Your task to perform on an android device: snooze an email in the gmail app Image 0: 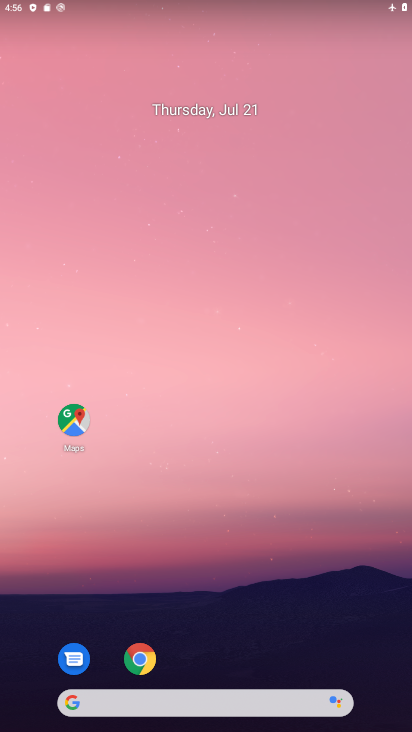
Step 0: drag from (365, 668) to (316, 101)
Your task to perform on an android device: snooze an email in the gmail app Image 1: 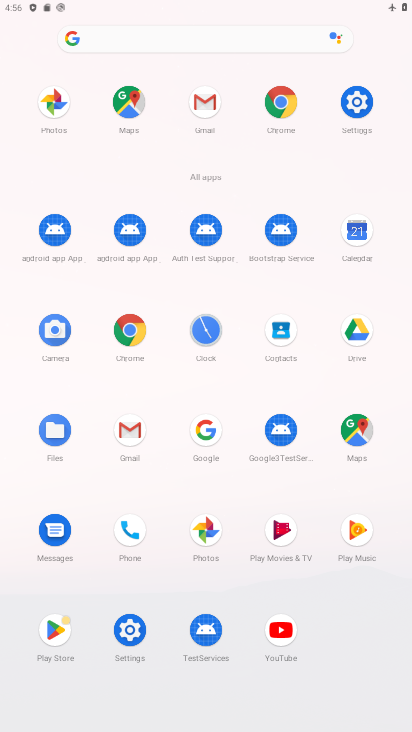
Step 1: click (129, 430)
Your task to perform on an android device: snooze an email in the gmail app Image 2: 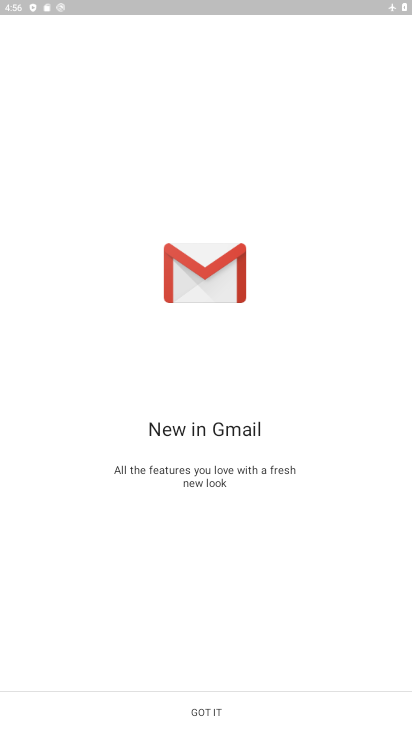
Step 2: click (197, 711)
Your task to perform on an android device: snooze an email in the gmail app Image 3: 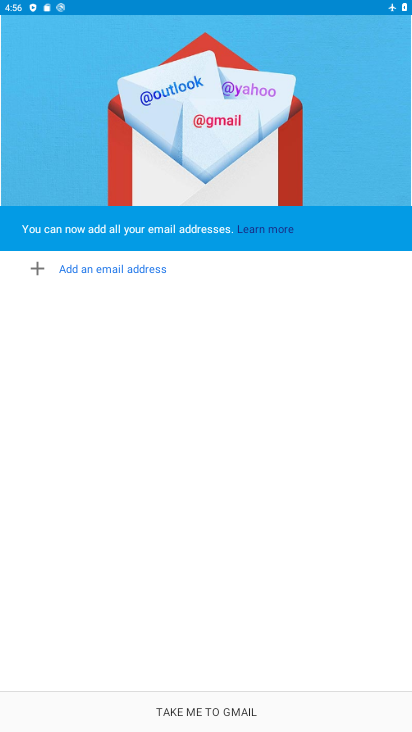
Step 3: click (211, 708)
Your task to perform on an android device: snooze an email in the gmail app Image 4: 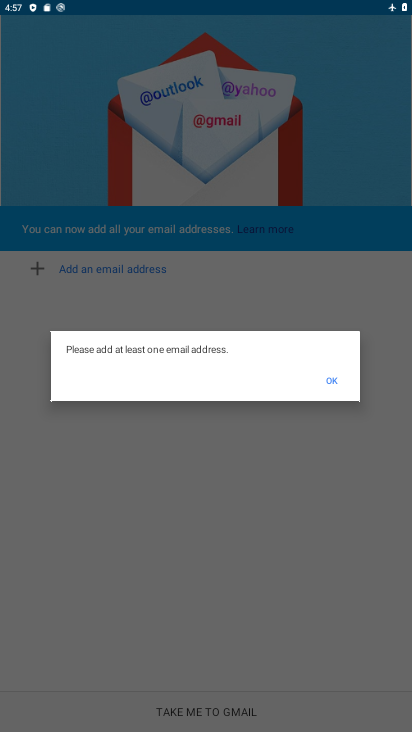
Step 4: task complete